Your task to perform on an android device: turn off notifications settings in the gmail app Image 0: 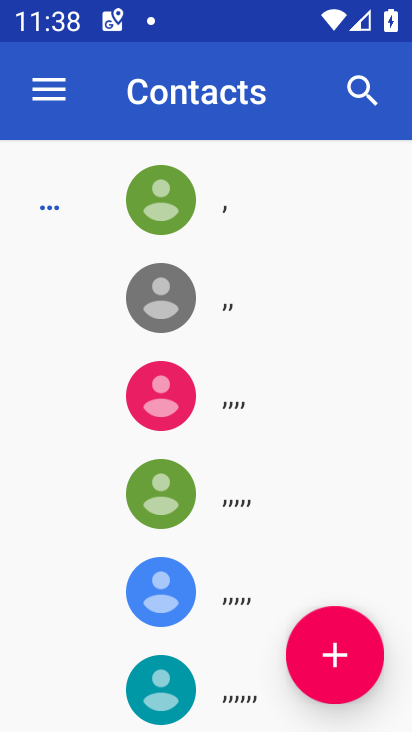
Step 0: press home button
Your task to perform on an android device: turn off notifications settings in the gmail app Image 1: 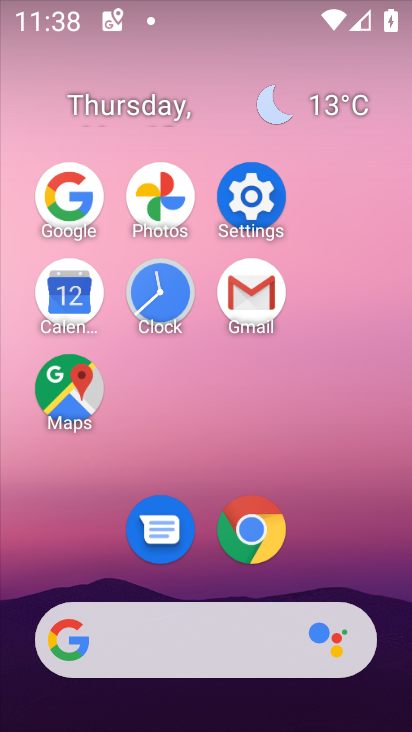
Step 1: click (281, 295)
Your task to perform on an android device: turn off notifications settings in the gmail app Image 2: 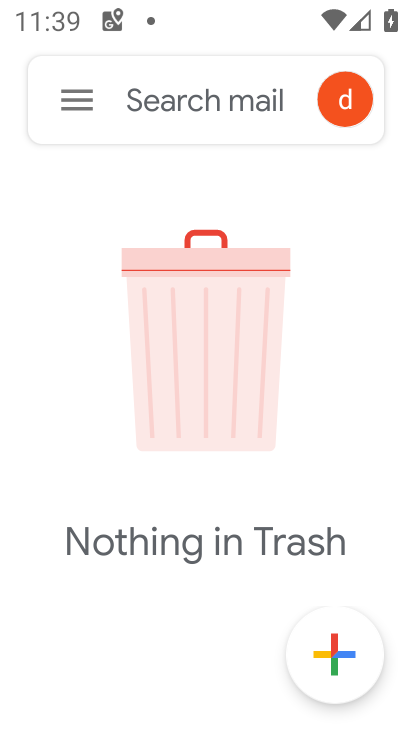
Step 2: click (75, 86)
Your task to perform on an android device: turn off notifications settings in the gmail app Image 3: 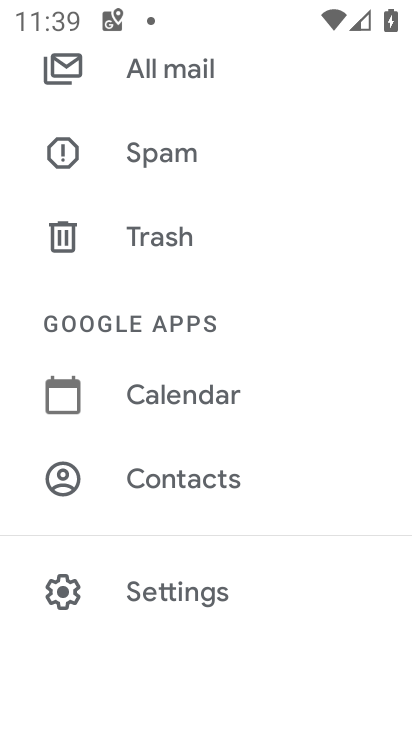
Step 3: drag from (226, 552) to (258, 198)
Your task to perform on an android device: turn off notifications settings in the gmail app Image 4: 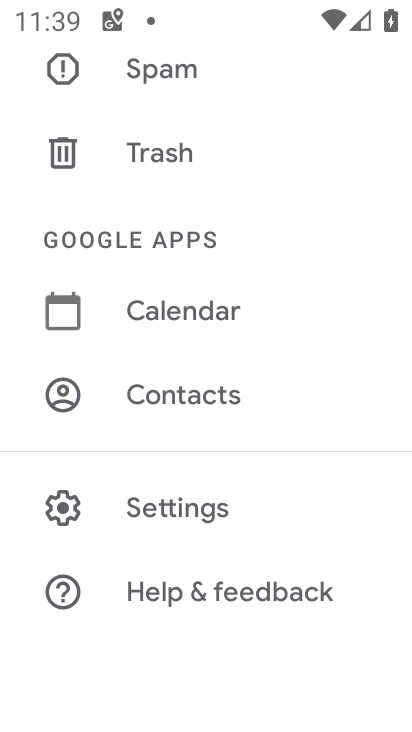
Step 4: click (226, 509)
Your task to perform on an android device: turn off notifications settings in the gmail app Image 5: 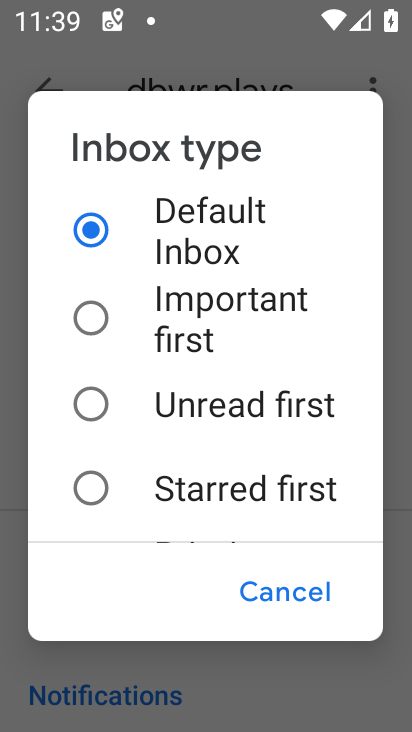
Step 5: click (272, 591)
Your task to perform on an android device: turn off notifications settings in the gmail app Image 6: 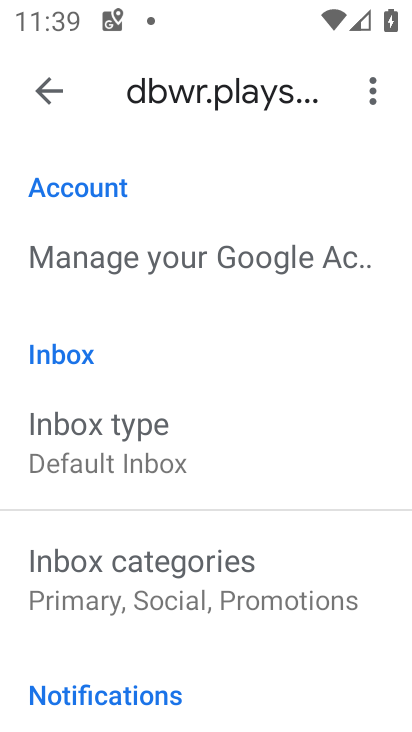
Step 6: drag from (247, 480) to (259, 90)
Your task to perform on an android device: turn off notifications settings in the gmail app Image 7: 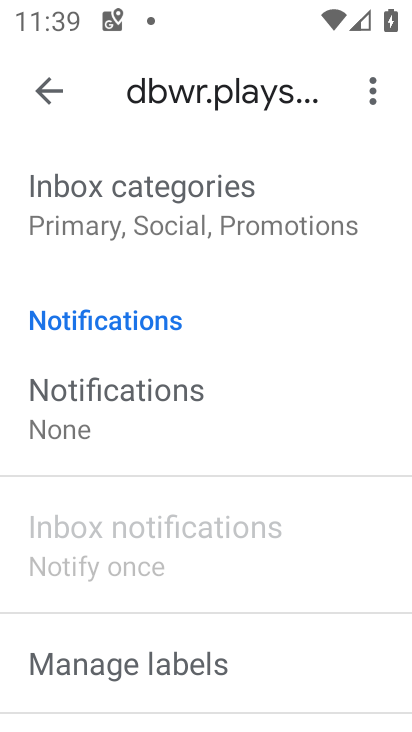
Step 7: click (148, 406)
Your task to perform on an android device: turn off notifications settings in the gmail app Image 8: 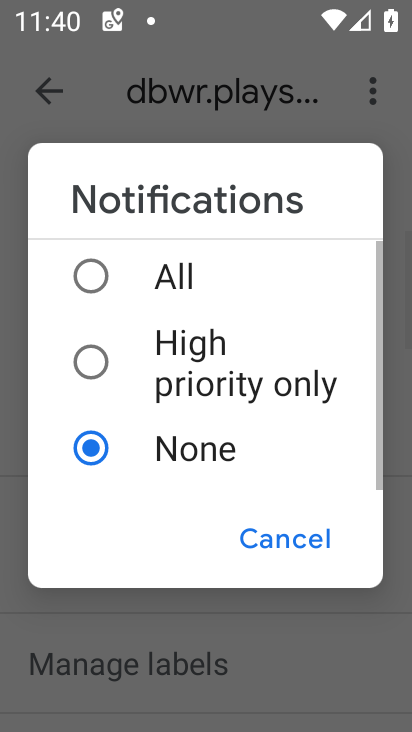
Step 8: task complete